Your task to perform on an android device: Check the weather Image 0: 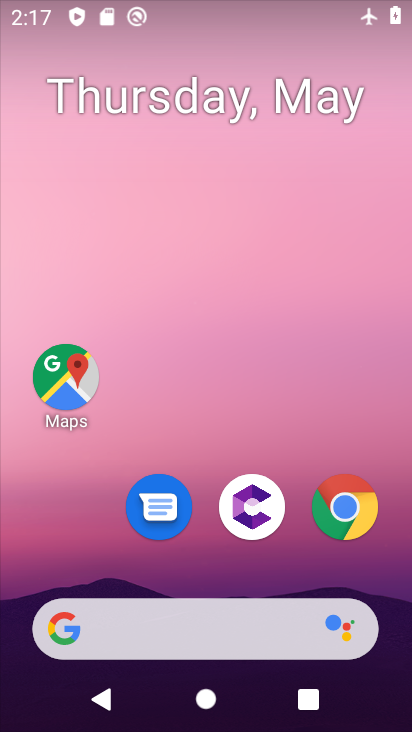
Step 0: press home button
Your task to perform on an android device: Check the weather Image 1: 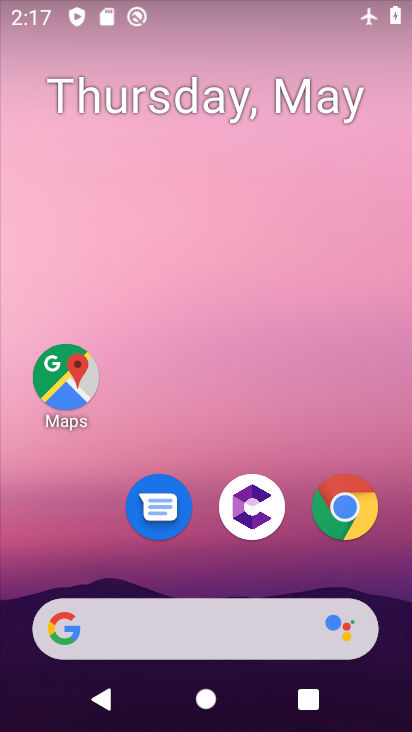
Step 1: click (67, 624)
Your task to perform on an android device: Check the weather Image 2: 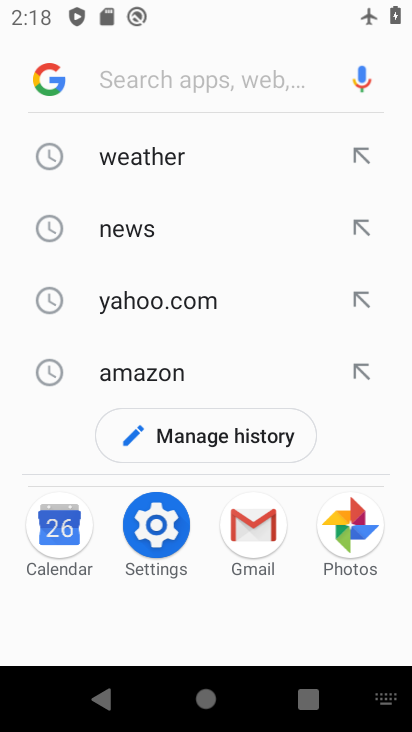
Step 2: click (136, 155)
Your task to perform on an android device: Check the weather Image 3: 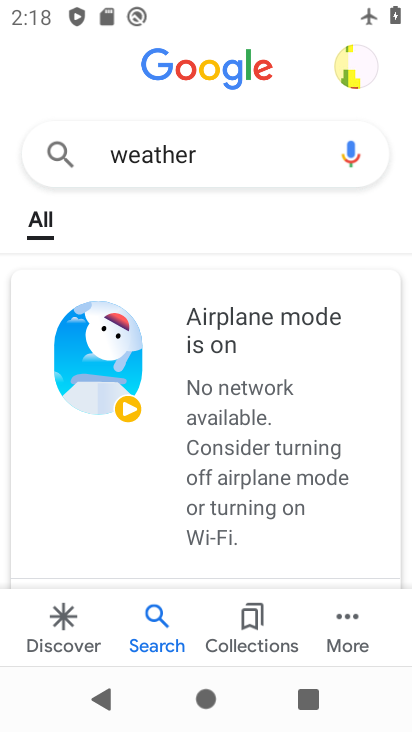
Step 3: drag from (218, 1) to (253, 379)
Your task to perform on an android device: Check the weather Image 4: 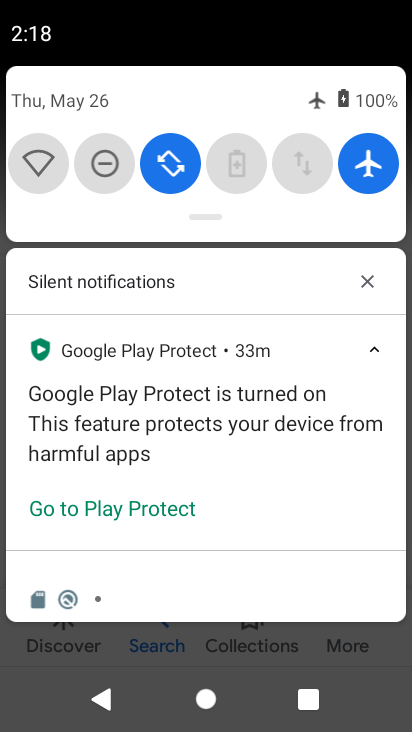
Step 4: click (42, 174)
Your task to perform on an android device: Check the weather Image 5: 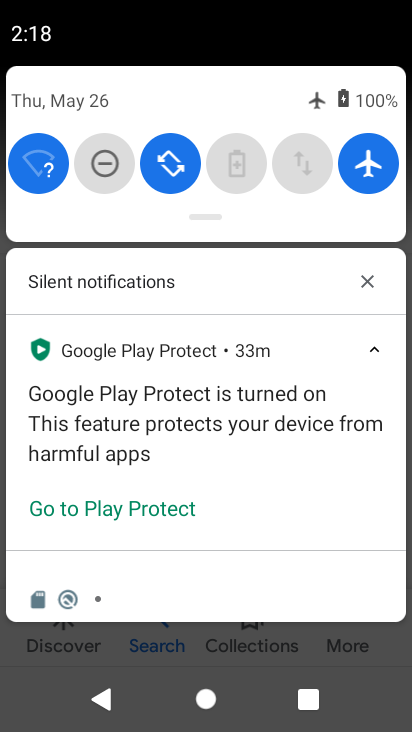
Step 5: drag from (232, 571) to (272, 139)
Your task to perform on an android device: Check the weather Image 6: 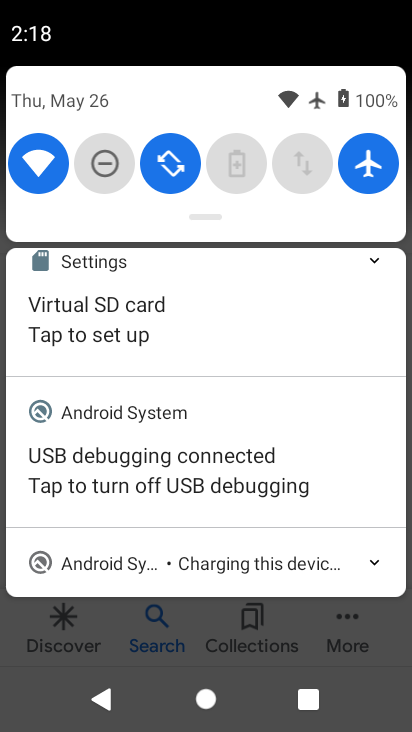
Step 6: drag from (202, 590) to (193, 156)
Your task to perform on an android device: Check the weather Image 7: 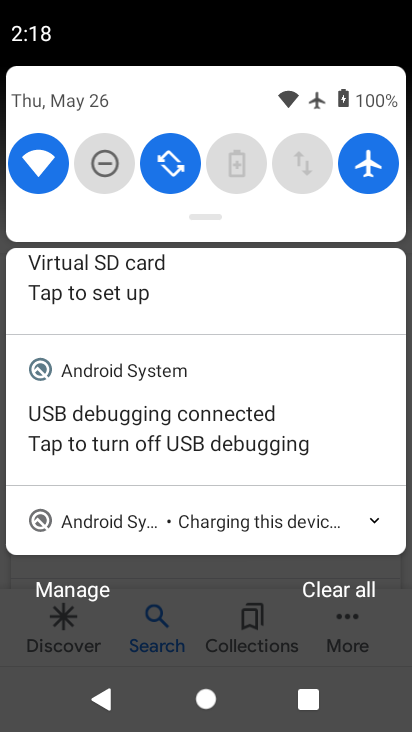
Step 7: drag from (333, 523) to (359, 19)
Your task to perform on an android device: Check the weather Image 8: 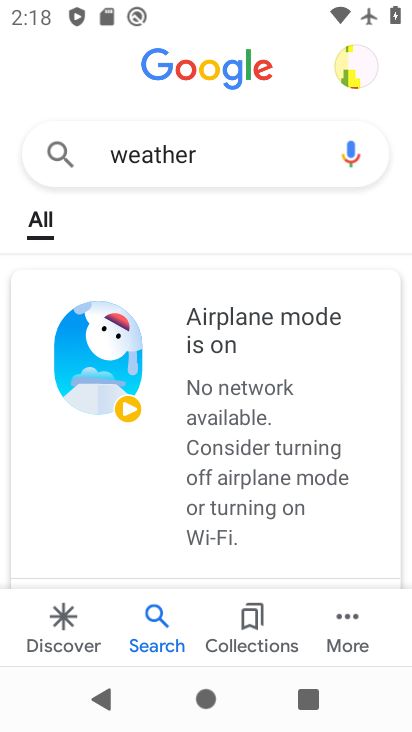
Step 8: click (226, 142)
Your task to perform on an android device: Check the weather Image 9: 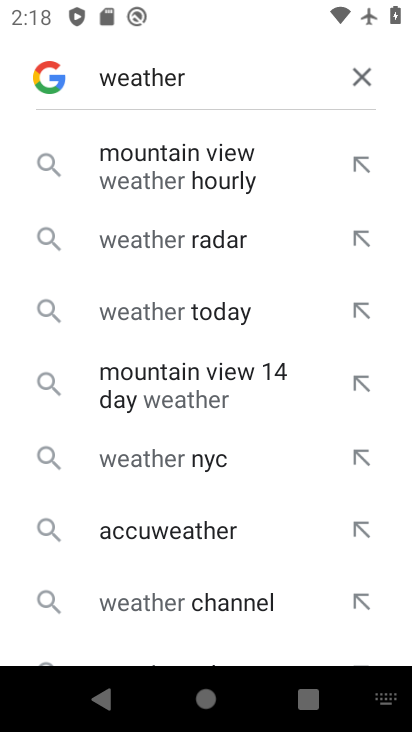
Step 9: click (232, 96)
Your task to perform on an android device: Check the weather Image 10: 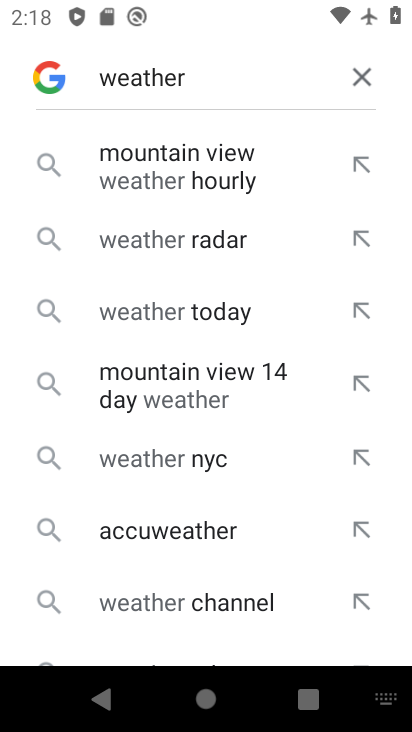
Step 10: click (363, 70)
Your task to perform on an android device: Check the weather Image 11: 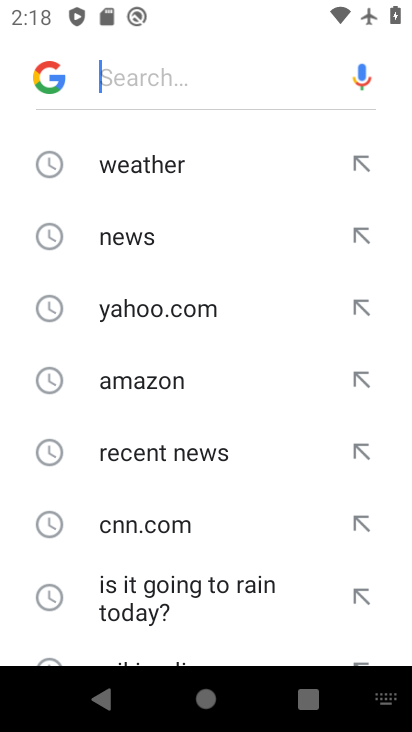
Step 11: click (144, 172)
Your task to perform on an android device: Check the weather Image 12: 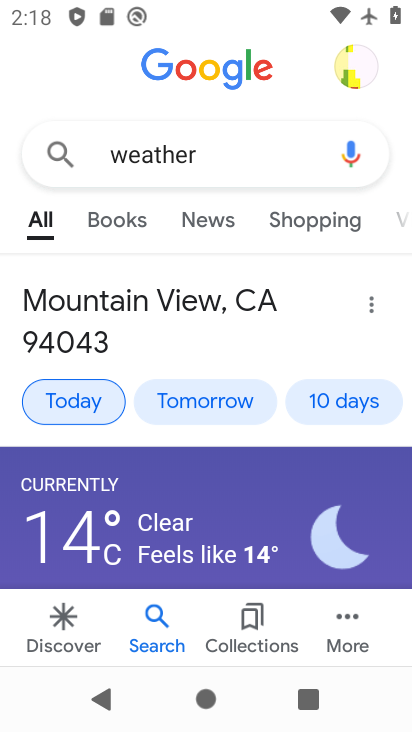
Step 12: task complete